Your task to perform on an android device: Go to CNN.com Image 0: 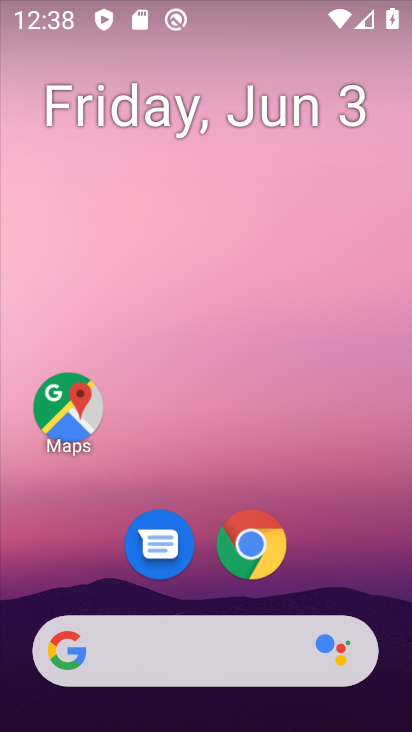
Step 0: click (242, 534)
Your task to perform on an android device: Go to CNN.com Image 1: 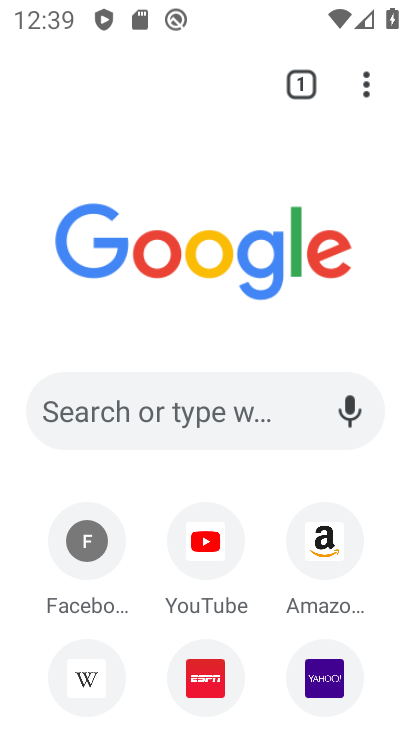
Step 1: click (205, 414)
Your task to perform on an android device: Go to CNN.com Image 2: 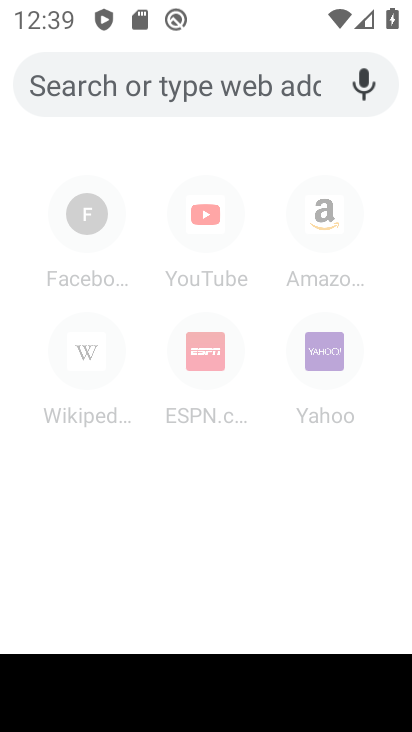
Step 2: type "CNN.com"
Your task to perform on an android device: Go to CNN.com Image 3: 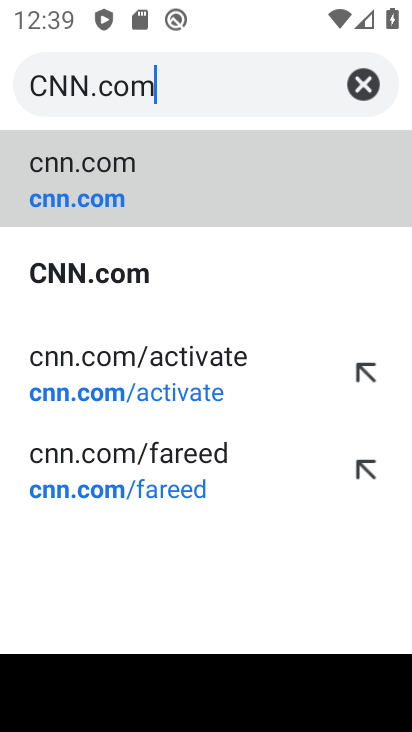
Step 3: click (84, 183)
Your task to perform on an android device: Go to CNN.com Image 4: 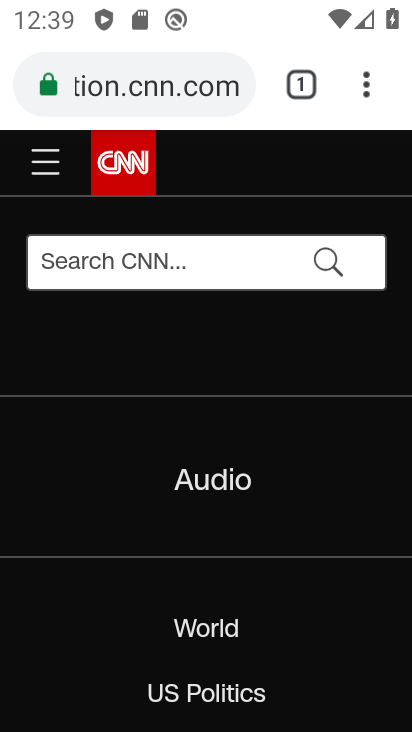
Step 4: task complete